Your task to perform on an android device: move a message to another label in the gmail app Image 0: 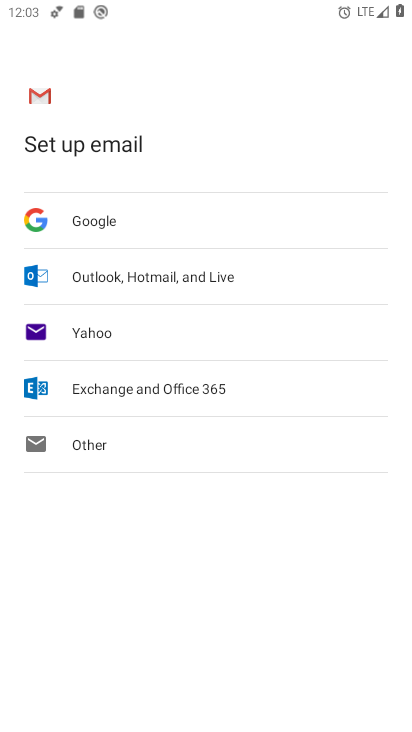
Step 0: press home button
Your task to perform on an android device: move a message to another label in the gmail app Image 1: 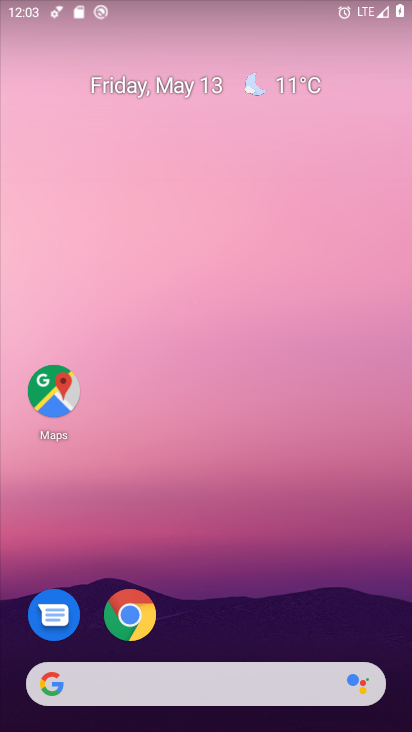
Step 1: drag from (214, 497) to (233, 66)
Your task to perform on an android device: move a message to another label in the gmail app Image 2: 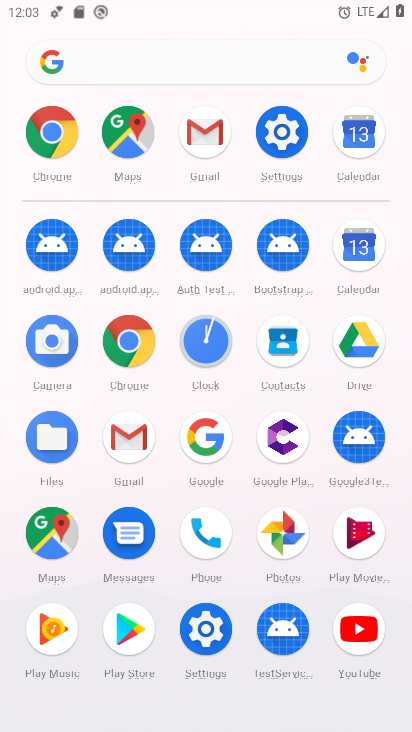
Step 2: click (218, 129)
Your task to perform on an android device: move a message to another label in the gmail app Image 3: 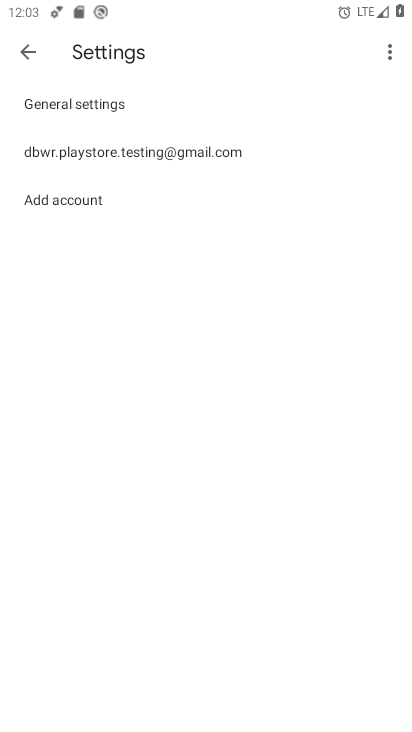
Step 3: click (29, 47)
Your task to perform on an android device: move a message to another label in the gmail app Image 4: 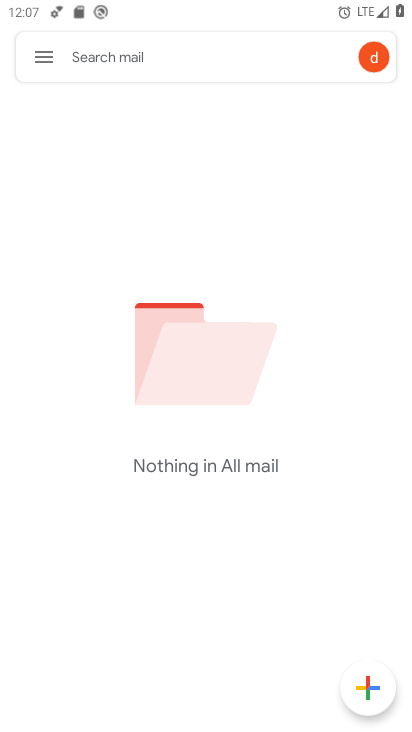
Step 4: task complete